Your task to perform on an android device: turn on notifications settings in the gmail app Image 0: 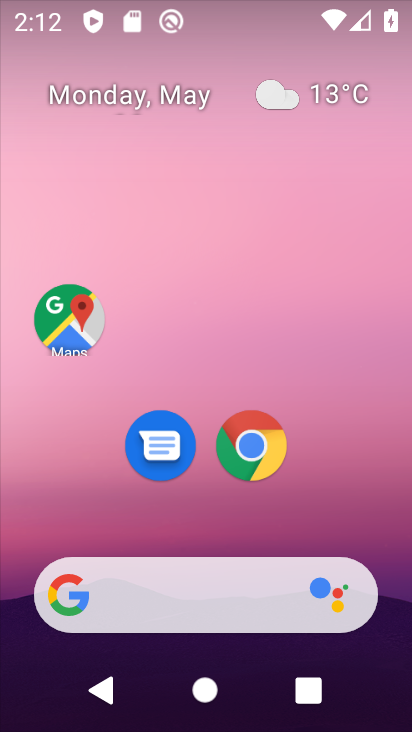
Step 0: drag from (340, 547) to (305, 45)
Your task to perform on an android device: turn on notifications settings in the gmail app Image 1: 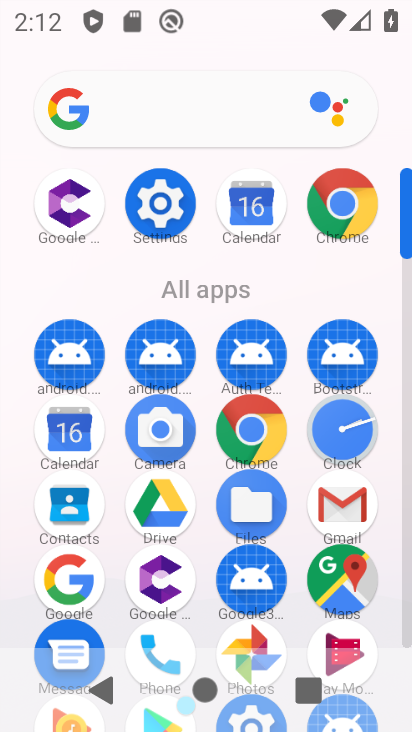
Step 1: click (340, 486)
Your task to perform on an android device: turn on notifications settings in the gmail app Image 2: 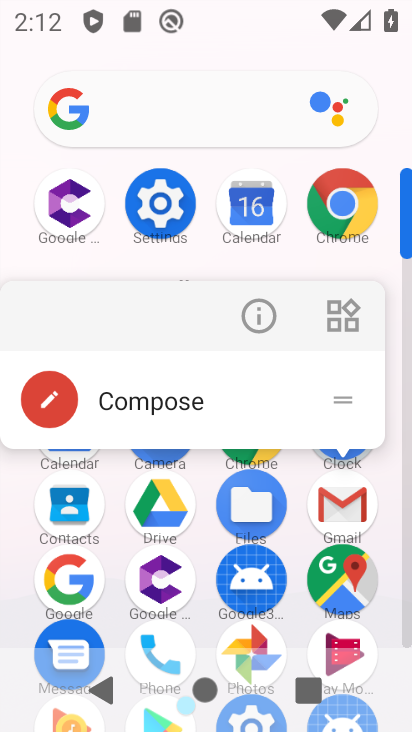
Step 2: click (262, 317)
Your task to perform on an android device: turn on notifications settings in the gmail app Image 3: 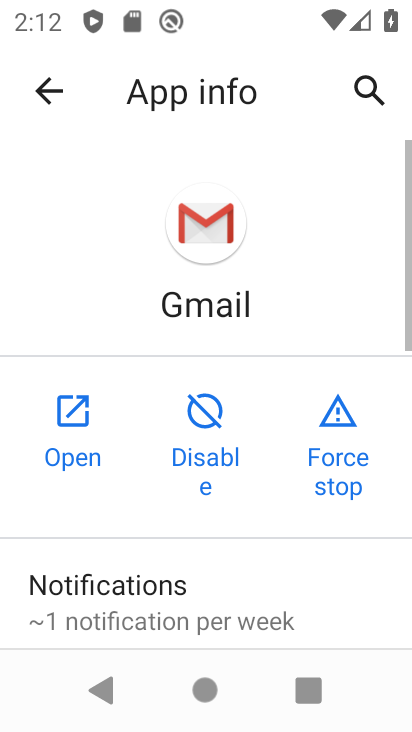
Step 3: click (177, 584)
Your task to perform on an android device: turn on notifications settings in the gmail app Image 4: 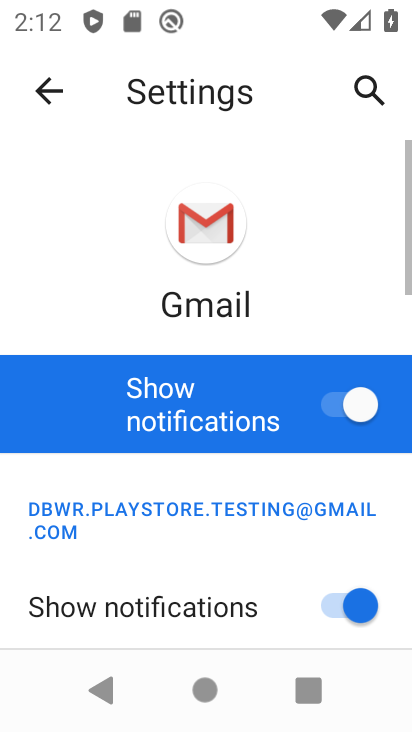
Step 4: task complete